Your task to perform on an android device: Open display settings Image 0: 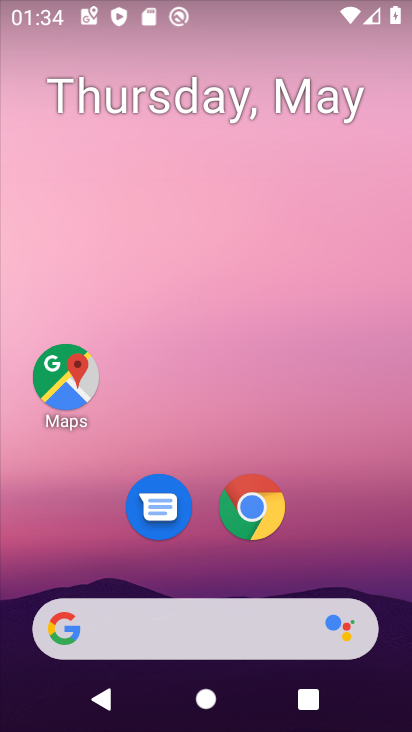
Step 0: drag from (303, 522) to (289, 194)
Your task to perform on an android device: Open display settings Image 1: 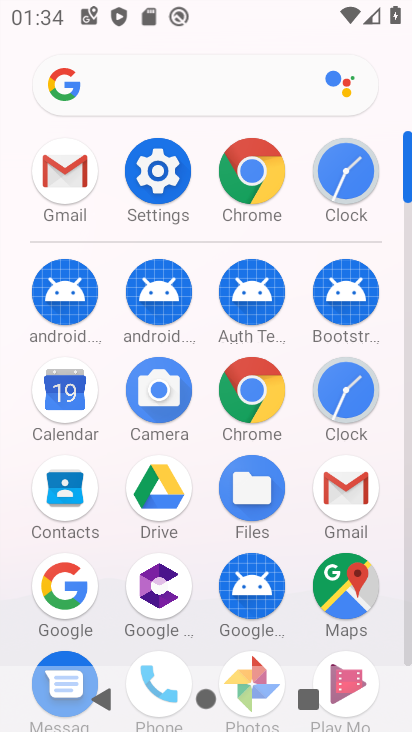
Step 1: click (141, 176)
Your task to perform on an android device: Open display settings Image 2: 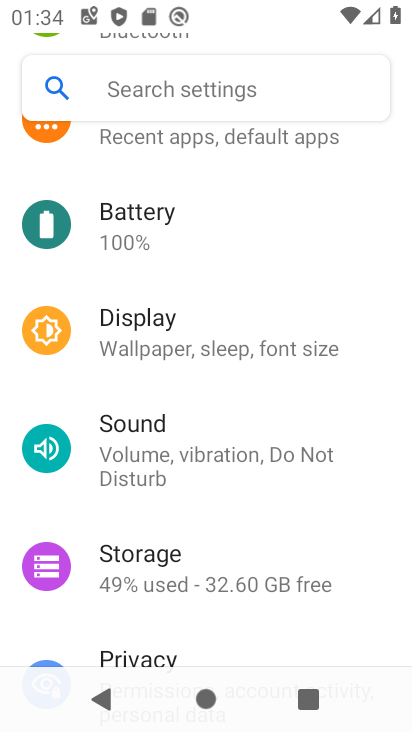
Step 2: click (176, 335)
Your task to perform on an android device: Open display settings Image 3: 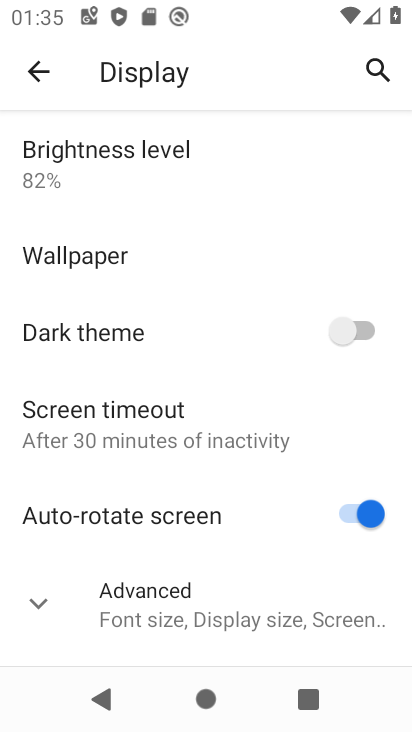
Step 3: task complete